Your task to perform on an android device: When is my next appointment? Image 0: 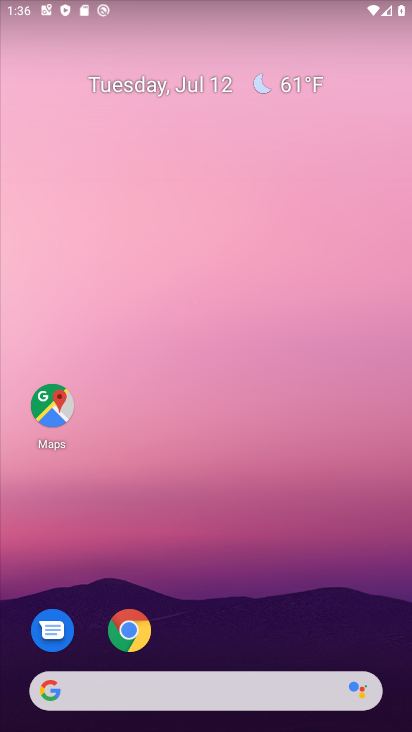
Step 0: drag from (195, 632) to (234, 169)
Your task to perform on an android device: When is my next appointment? Image 1: 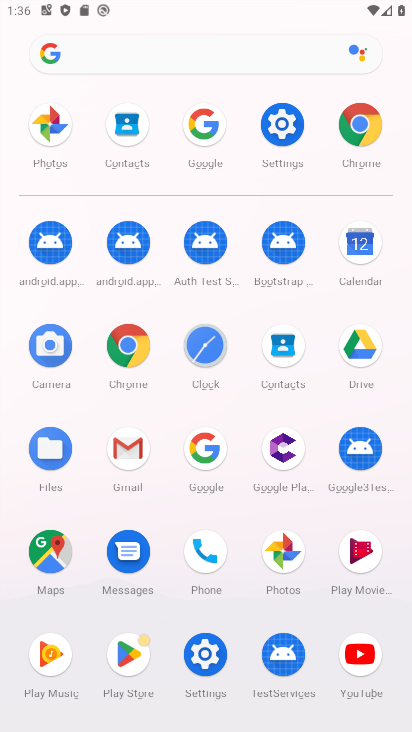
Step 1: click (334, 257)
Your task to perform on an android device: When is my next appointment? Image 2: 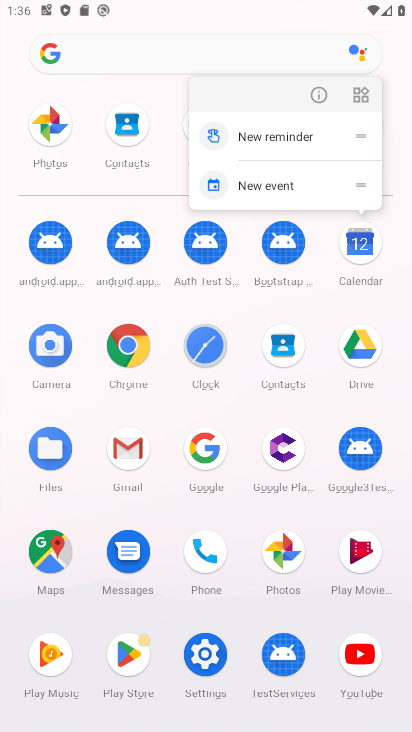
Step 2: click (334, 257)
Your task to perform on an android device: When is my next appointment? Image 3: 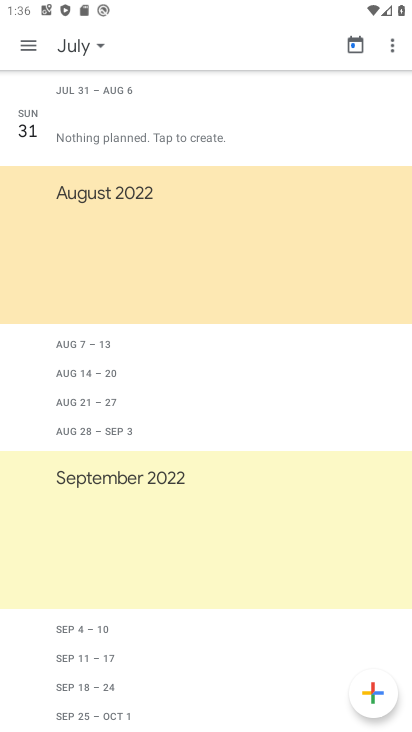
Step 3: task complete